Your task to perform on an android device: Turn off the flashlight Image 0: 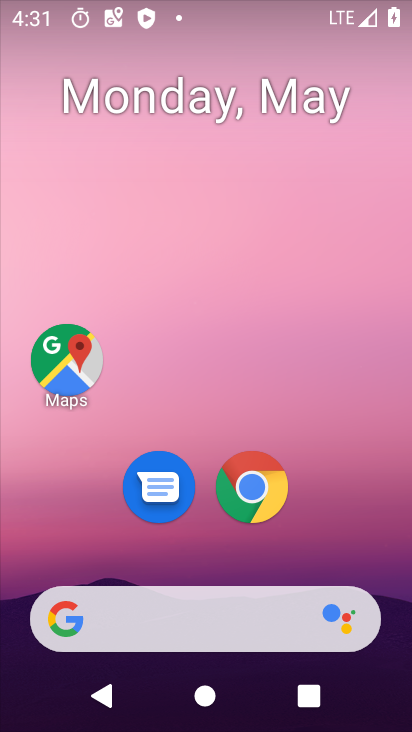
Step 0: drag from (182, 20) to (253, 713)
Your task to perform on an android device: Turn off the flashlight Image 1: 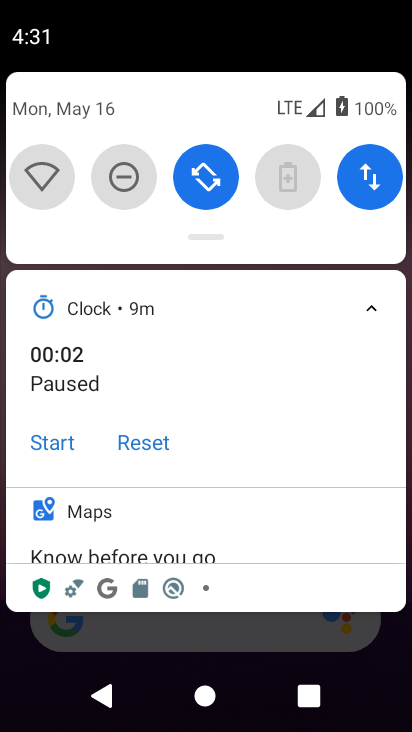
Step 1: task complete